Your task to perform on an android device: turn on priority inbox in the gmail app Image 0: 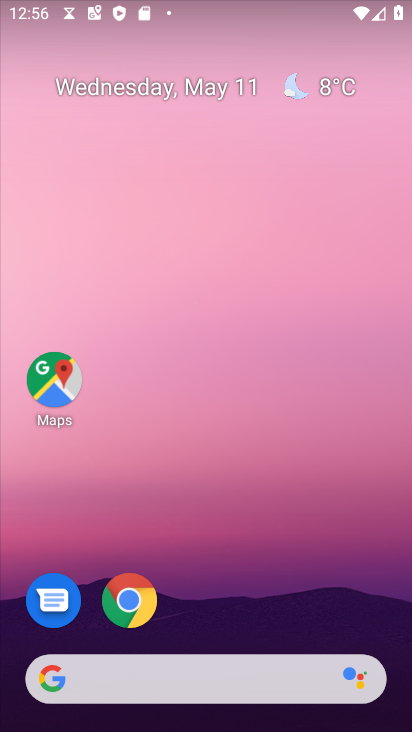
Step 0: drag from (256, 520) to (256, 84)
Your task to perform on an android device: turn on priority inbox in the gmail app Image 1: 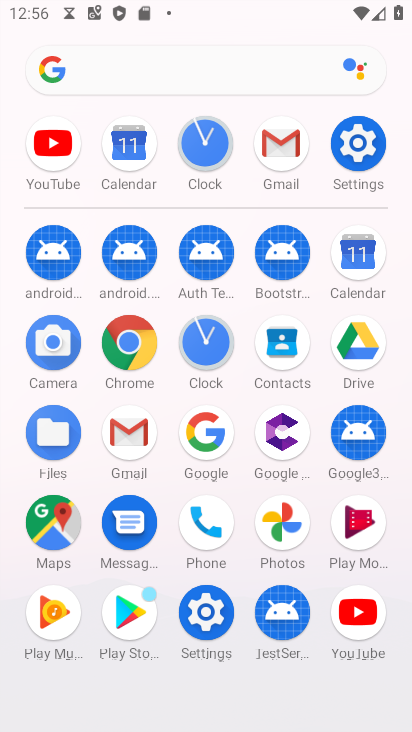
Step 1: click (121, 444)
Your task to perform on an android device: turn on priority inbox in the gmail app Image 2: 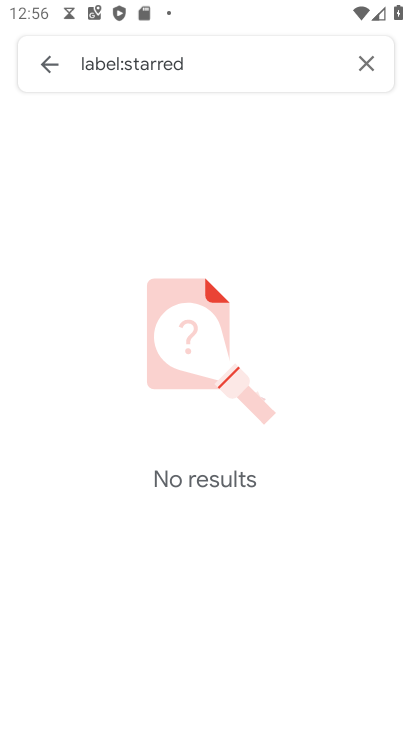
Step 2: click (366, 63)
Your task to perform on an android device: turn on priority inbox in the gmail app Image 3: 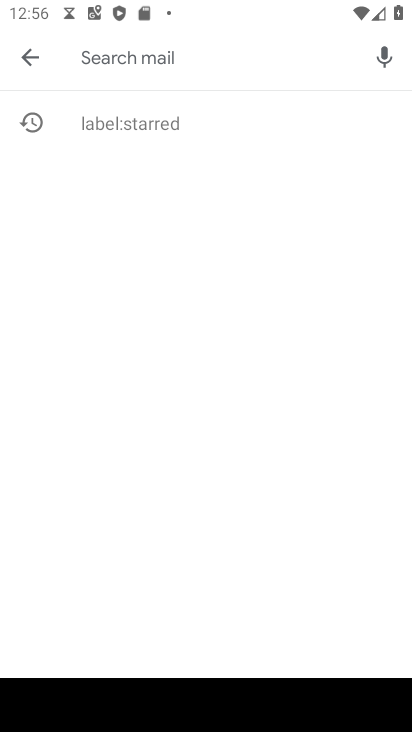
Step 3: click (29, 46)
Your task to perform on an android device: turn on priority inbox in the gmail app Image 4: 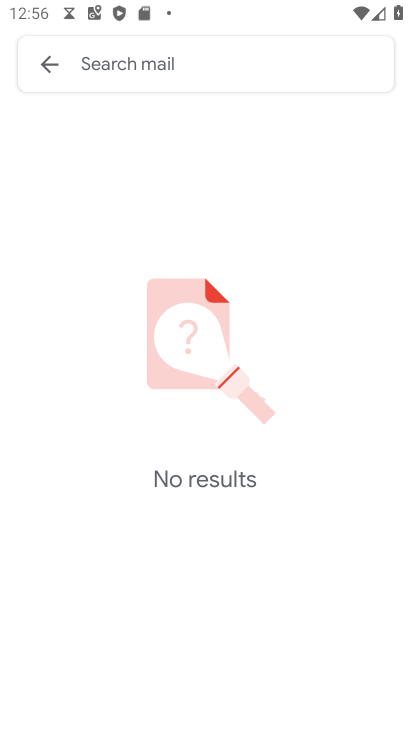
Step 4: click (34, 60)
Your task to perform on an android device: turn on priority inbox in the gmail app Image 5: 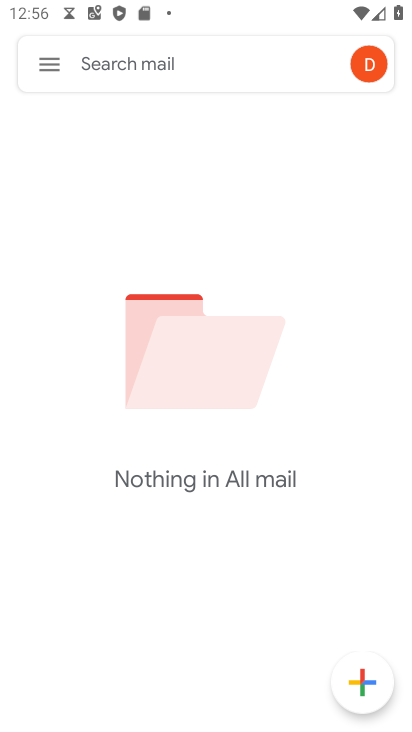
Step 5: click (48, 62)
Your task to perform on an android device: turn on priority inbox in the gmail app Image 6: 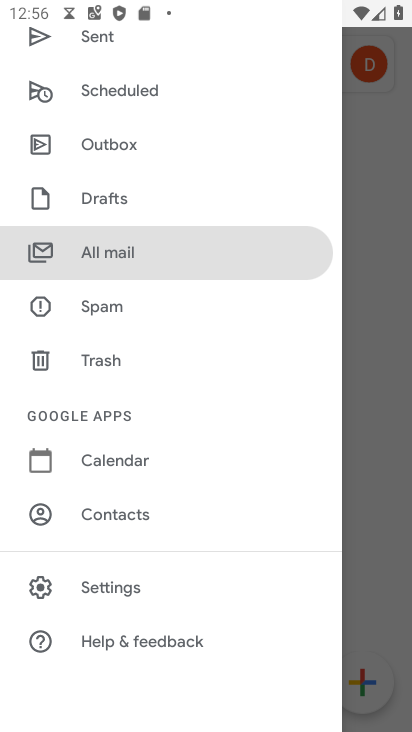
Step 6: click (166, 581)
Your task to perform on an android device: turn on priority inbox in the gmail app Image 7: 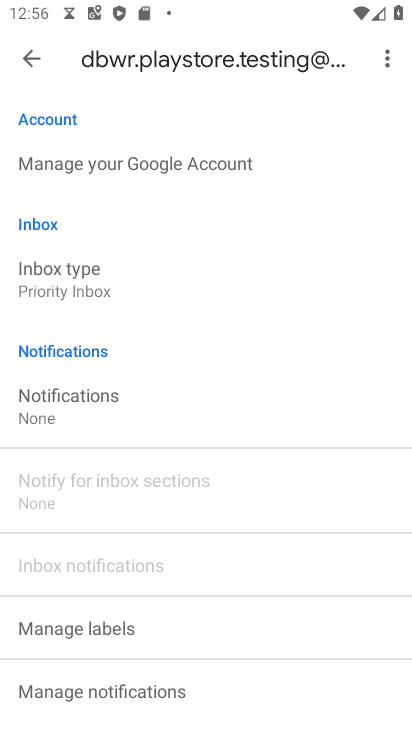
Step 7: click (134, 275)
Your task to perform on an android device: turn on priority inbox in the gmail app Image 8: 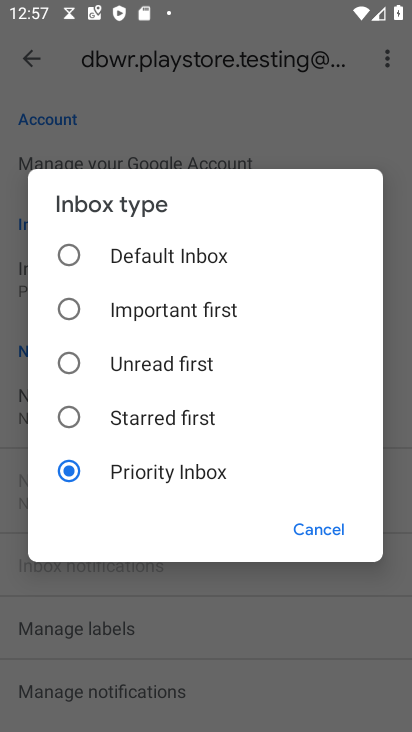
Step 8: task complete